Your task to perform on an android device: Search for vegetarian restaurants on Maps Image 0: 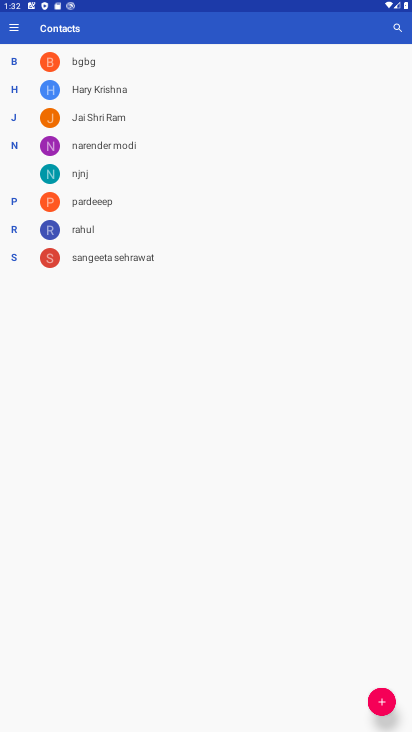
Step 0: press home button
Your task to perform on an android device: Search for vegetarian restaurants on Maps Image 1: 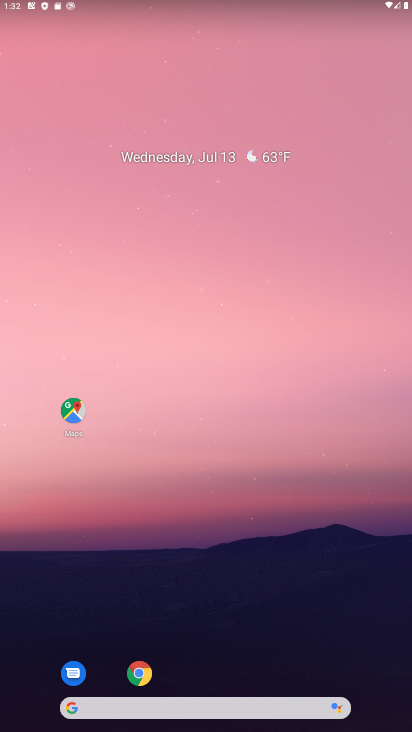
Step 1: drag from (236, 670) to (244, 261)
Your task to perform on an android device: Search for vegetarian restaurants on Maps Image 2: 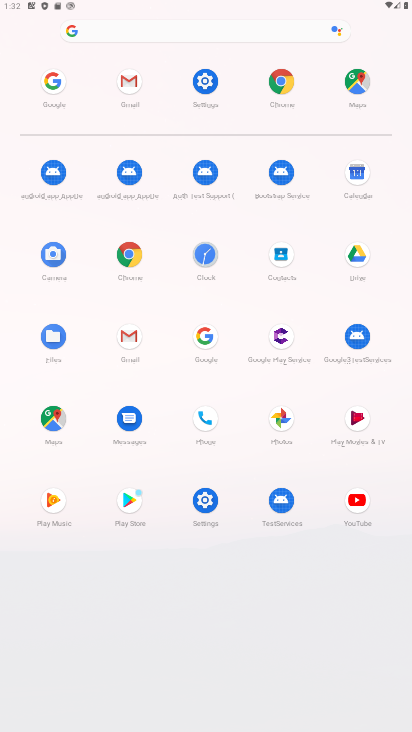
Step 2: click (346, 72)
Your task to perform on an android device: Search for vegetarian restaurants on Maps Image 3: 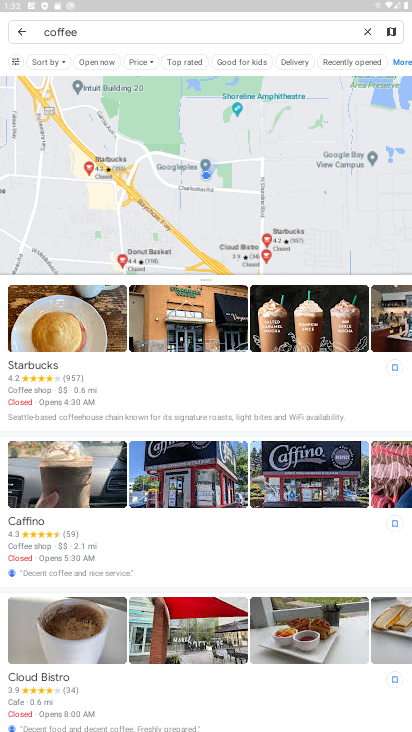
Step 3: click (370, 26)
Your task to perform on an android device: Search for vegetarian restaurants on Maps Image 4: 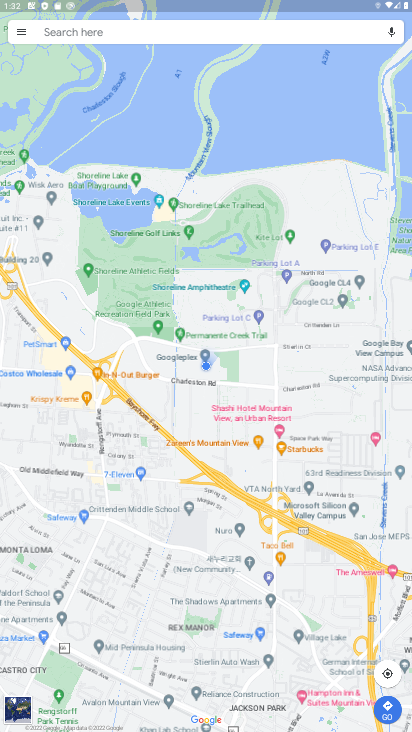
Step 4: click (137, 28)
Your task to perform on an android device: Search for vegetarian restaurants on Maps Image 5: 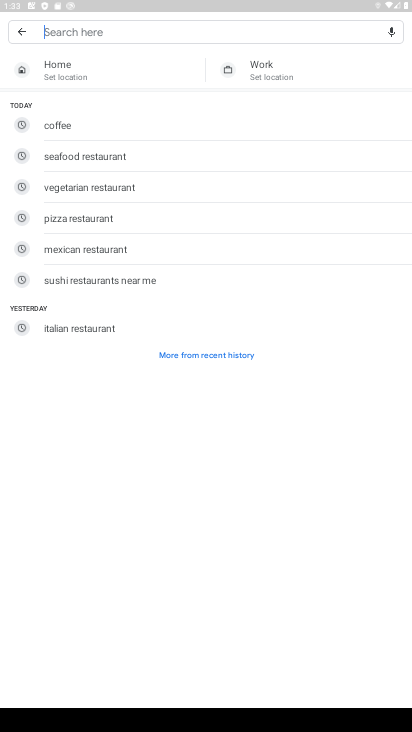
Step 5: type " vegetarian restaurants "
Your task to perform on an android device: Search for vegetarian restaurants on Maps Image 6: 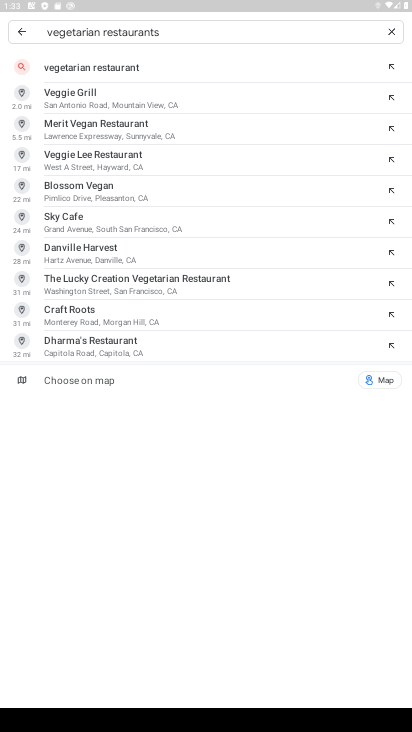
Step 6: click (136, 60)
Your task to perform on an android device: Search for vegetarian restaurants on Maps Image 7: 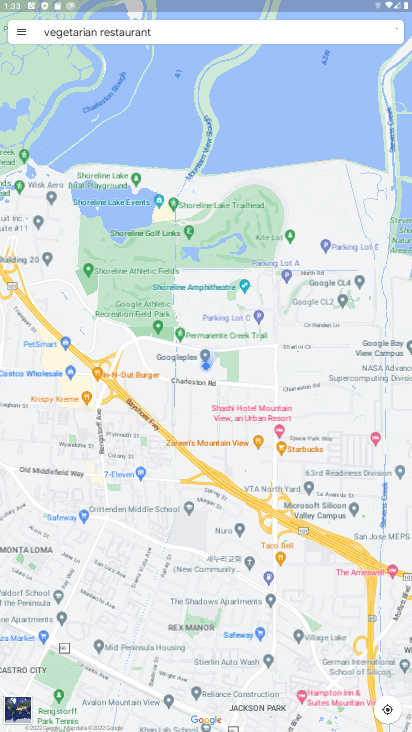
Step 7: task complete